Your task to perform on an android device: turn off sleep mode Image 0: 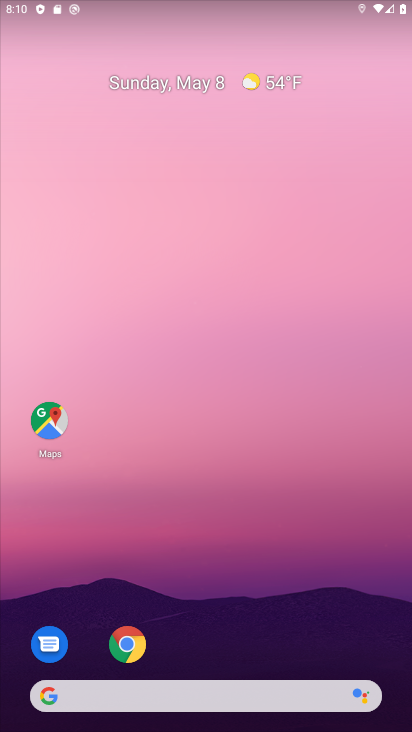
Step 0: drag from (189, 660) to (316, 140)
Your task to perform on an android device: turn off sleep mode Image 1: 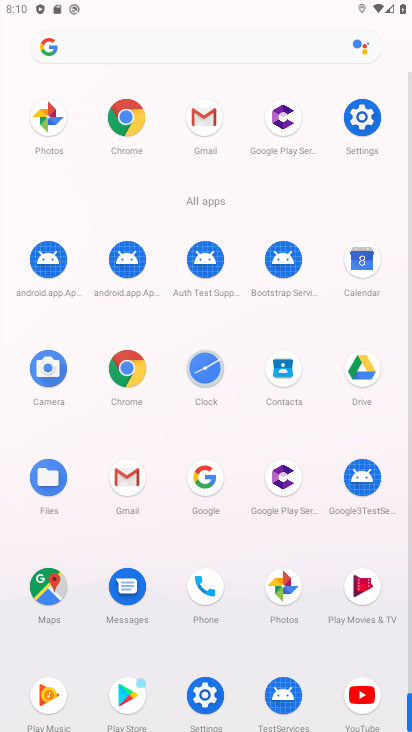
Step 1: drag from (241, 690) to (212, 216)
Your task to perform on an android device: turn off sleep mode Image 2: 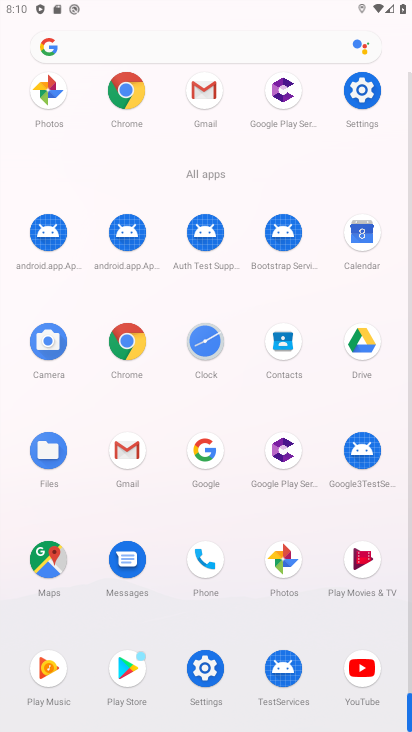
Step 2: click (200, 662)
Your task to perform on an android device: turn off sleep mode Image 3: 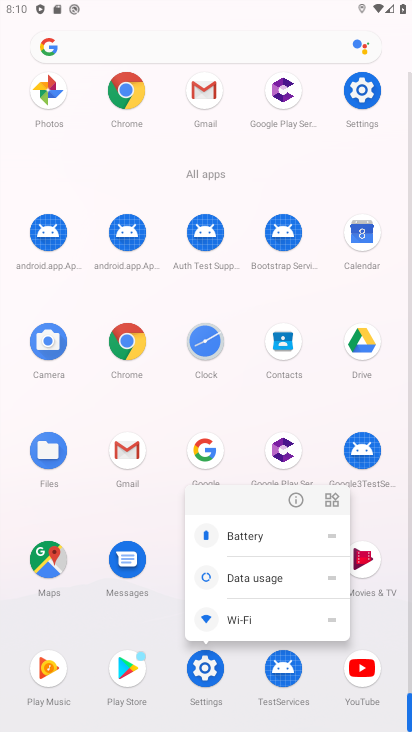
Step 3: click (295, 500)
Your task to perform on an android device: turn off sleep mode Image 4: 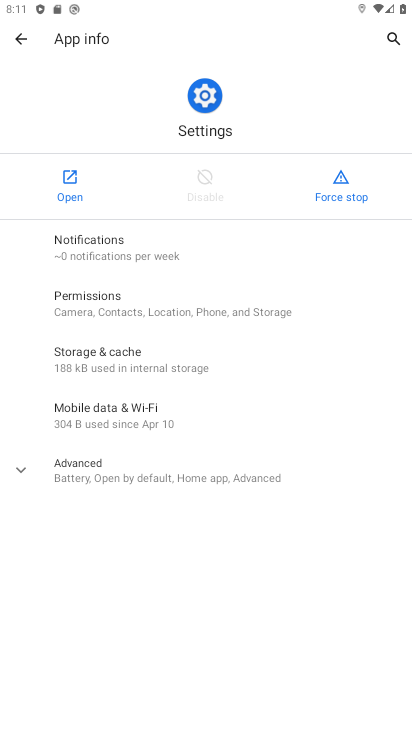
Step 4: click (69, 184)
Your task to perform on an android device: turn off sleep mode Image 5: 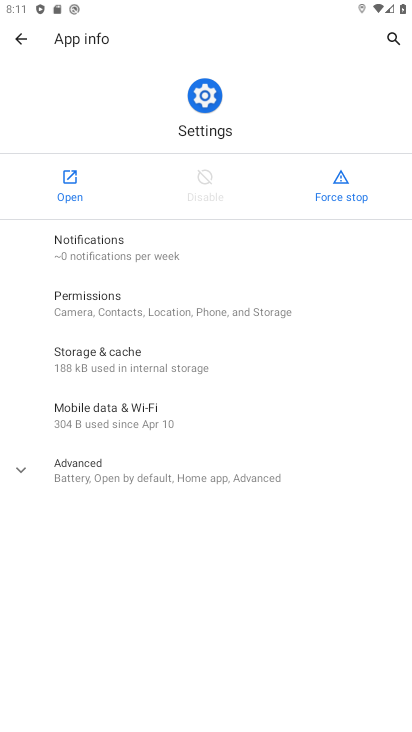
Step 5: click (69, 184)
Your task to perform on an android device: turn off sleep mode Image 6: 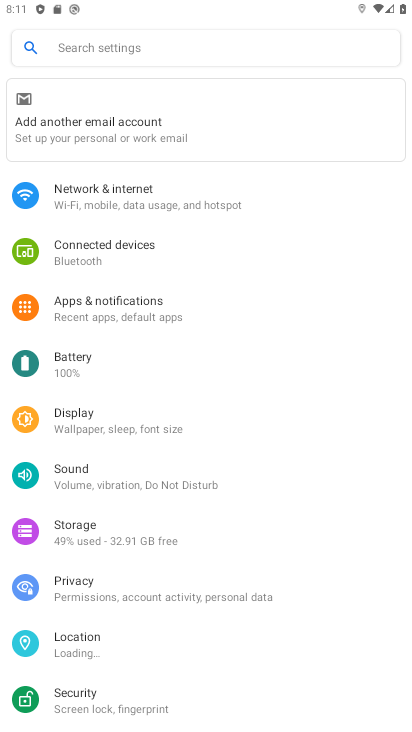
Step 6: drag from (202, 616) to (181, 336)
Your task to perform on an android device: turn off sleep mode Image 7: 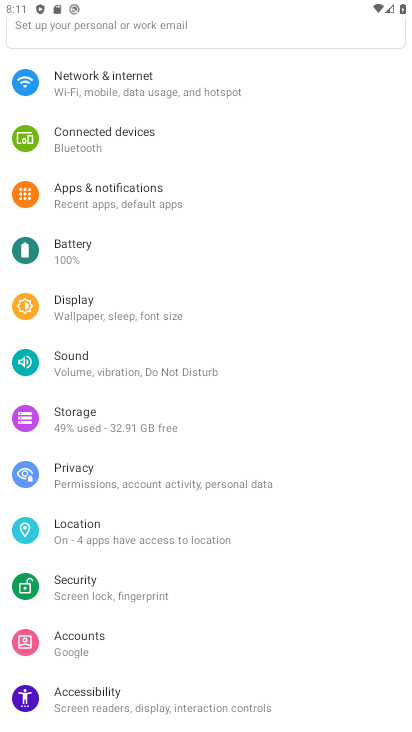
Step 7: drag from (191, 151) to (296, 656)
Your task to perform on an android device: turn off sleep mode Image 8: 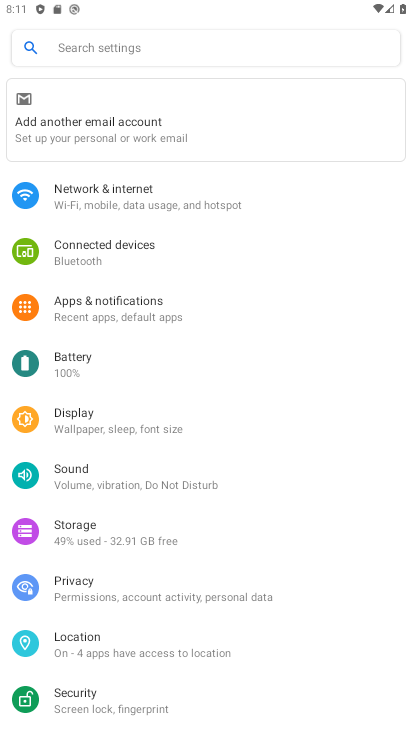
Step 8: drag from (192, 642) to (241, 361)
Your task to perform on an android device: turn off sleep mode Image 9: 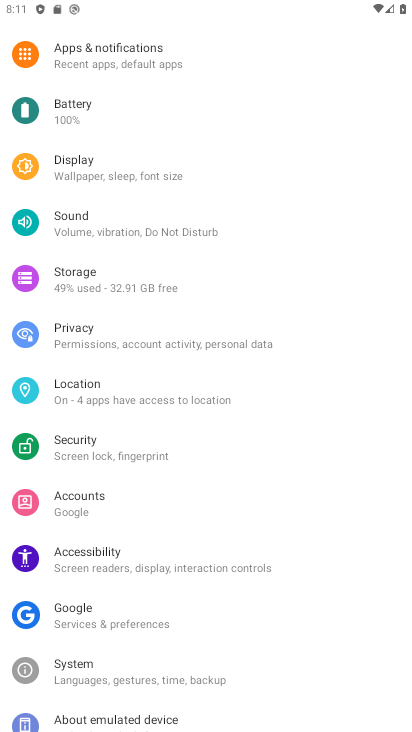
Step 9: drag from (287, 337) to (308, 684)
Your task to perform on an android device: turn off sleep mode Image 10: 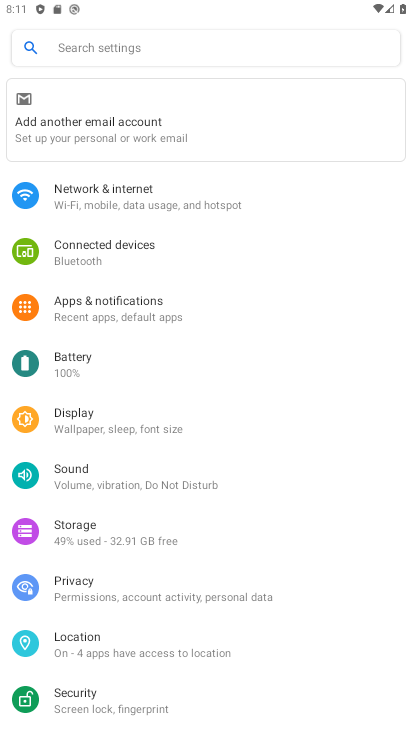
Step 10: click (99, 418)
Your task to perform on an android device: turn off sleep mode Image 11: 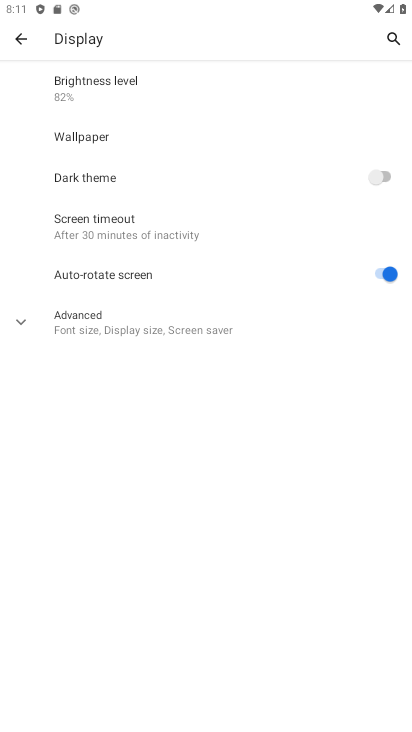
Step 11: click (196, 224)
Your task to perform on an android device: turn off sleep mode Image 12: 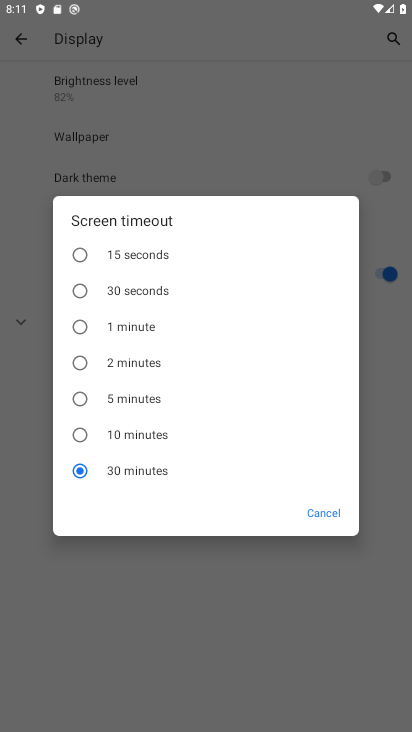
Step 12: task complete